Your task to perform on an android device: move an email to a new category in the gmail app Image 0: 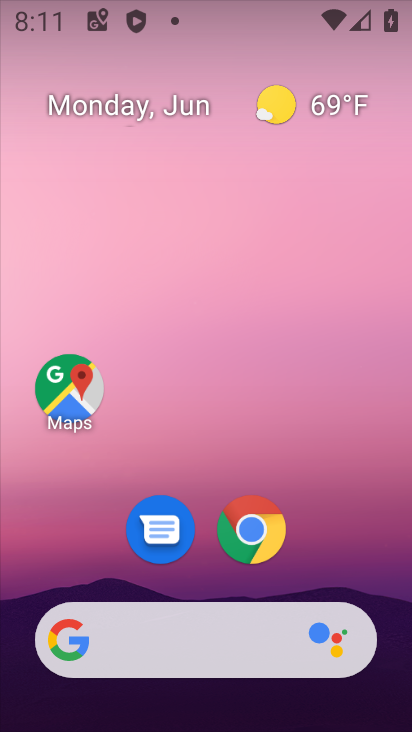
Step 0: drag from (368, 463) to (408, 273)
Your task to perform on an android device: move an email to a new category in the gmail app Image 1: 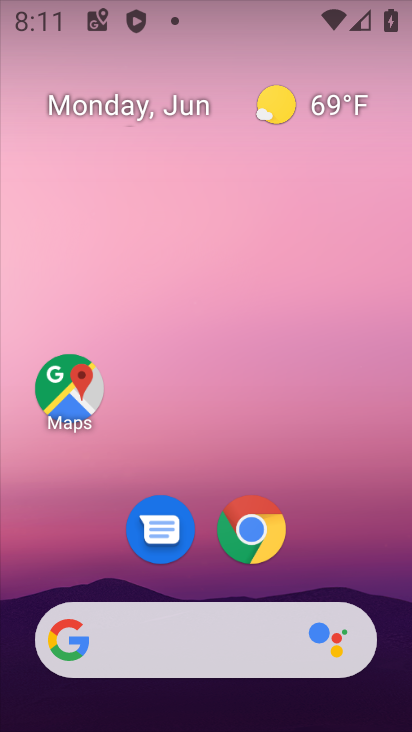
Step 1: drag from (354, 497) to (408, 20)
Your task to perform on an android device: move an email to a new category in the gmail app Image 2: 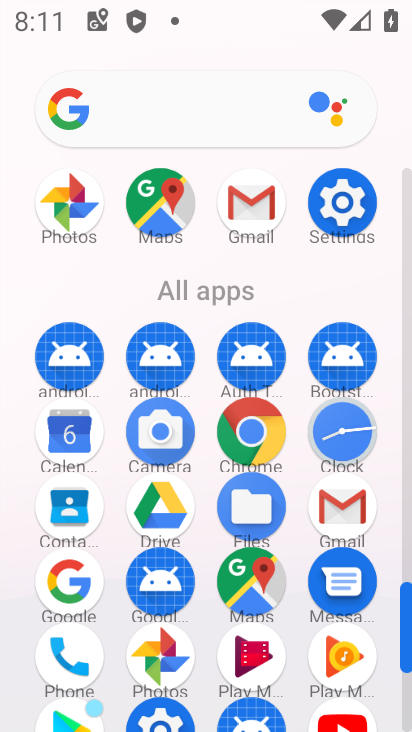
Step 2: click (265, 226)
Your task to perform on an android device: move an email to a new category in the gmail app Image 3: 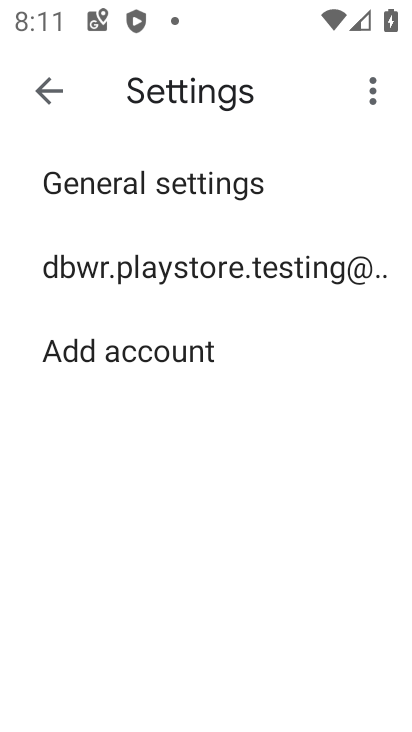
Step 3: click (244, 199)
Your task to perform on an android device: move an email to a new category in the gmail app Image 4: 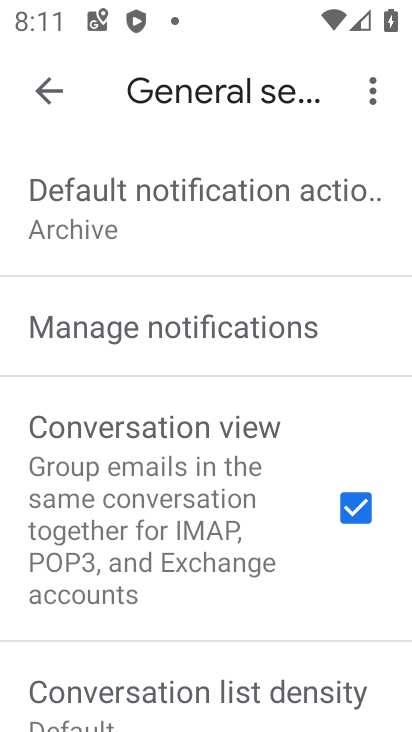
Step 4: task complete